Your task to perform on an android device: Open Chrome and go to the settings page Image 0: 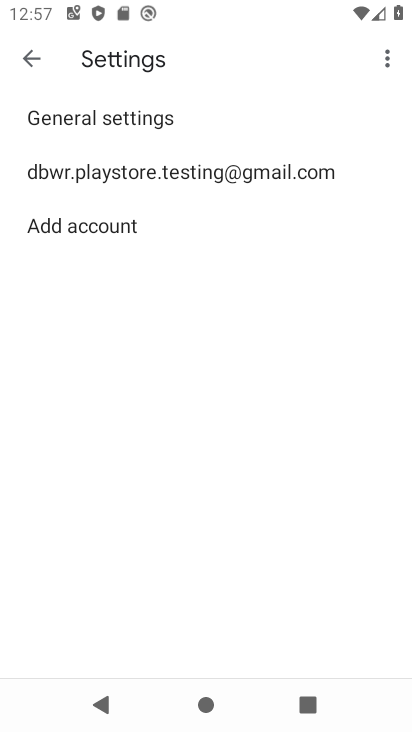
Step 0: press home button
Your task to perform on an android device: Open Chrome and go to the settings page Image 1: 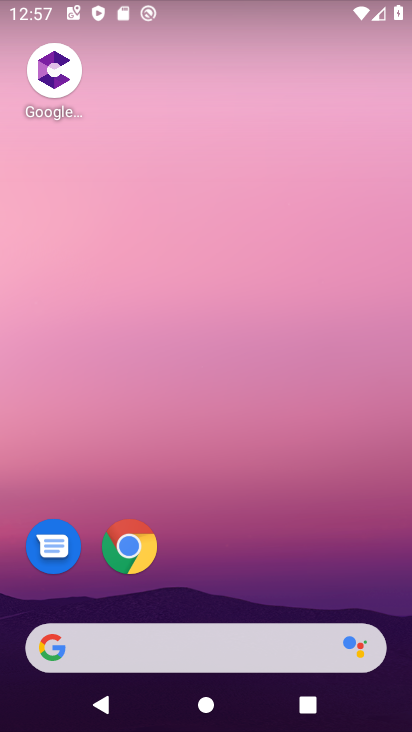
Step 1: click (124, 559)
Your task to perform on an android device: Open Chrome and go to the settings page Image 2: 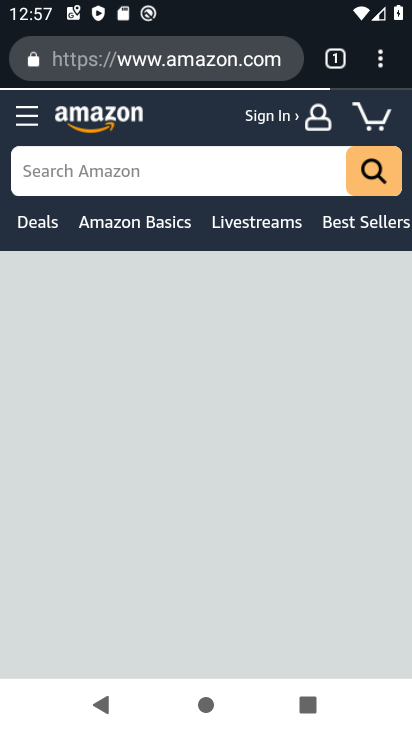
Step 2: click (390, 57)
Your task to perform on an android device: Open Chrome and go to the settings page Image 3: 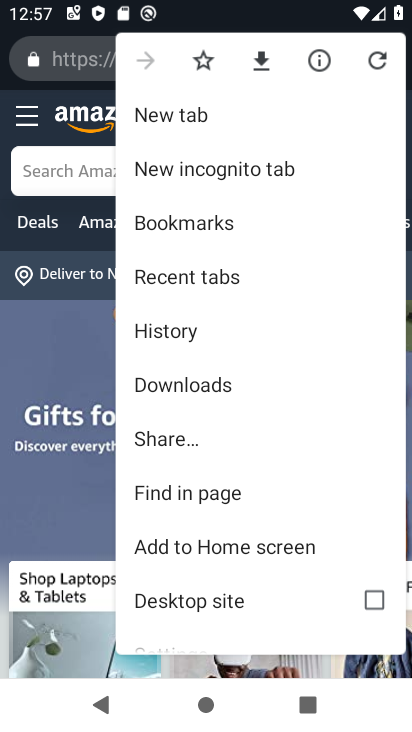
Step 3: drag from (208, 604) to (191, 369)
Your task to perform on an android device: Open Chrome and go to the settings page Image 4: 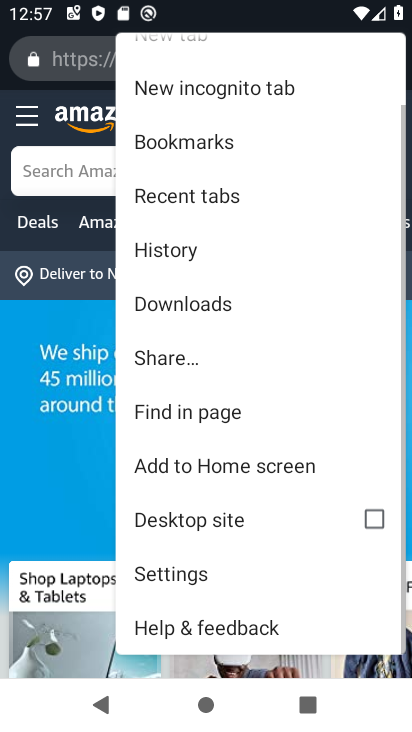
Step 4: click (210, 582)
Your task to perform on an android device: Open Chrome and go to the settings page Image 5: 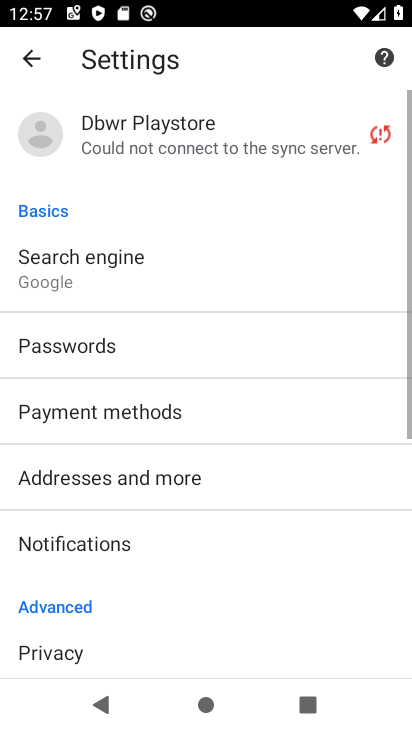
Step 5: task complete